Your task to perform on an android device: Open accessibility settings Image 0: 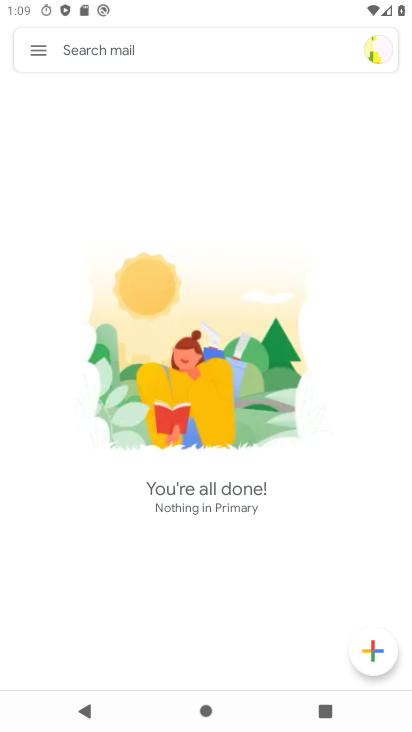
Step 0: press home button
Your task to perform on an android device: Open accessibility settings Image 1: 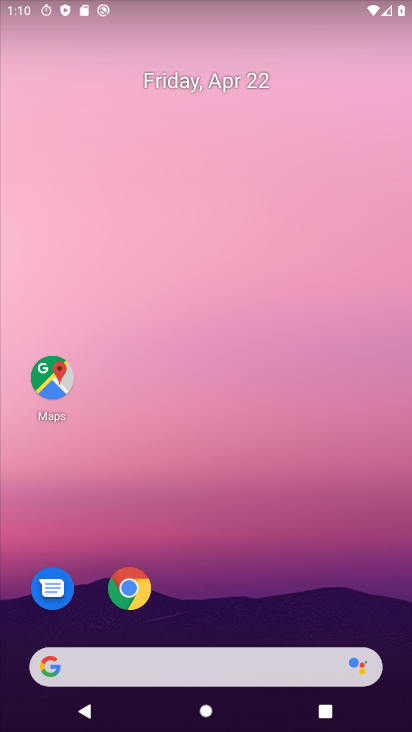
Step 1: drag from (367, 620) to (350, 175)
Your task to perform on an android device: Open accessibility settings Image 2: 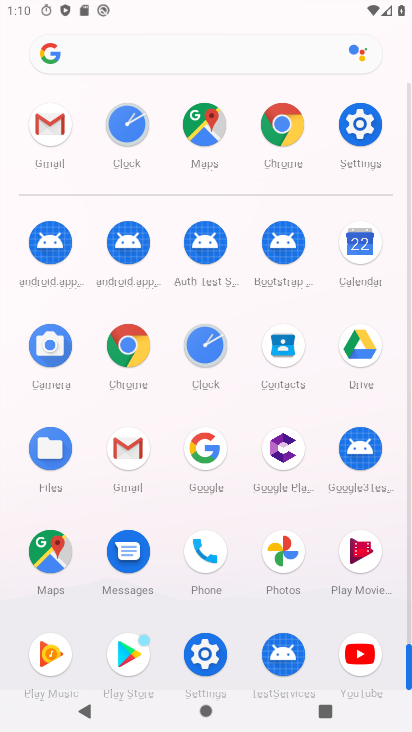
Step 2: click (217, 656)
Your task to perform on an android device: Open accessibility settings Image 3: 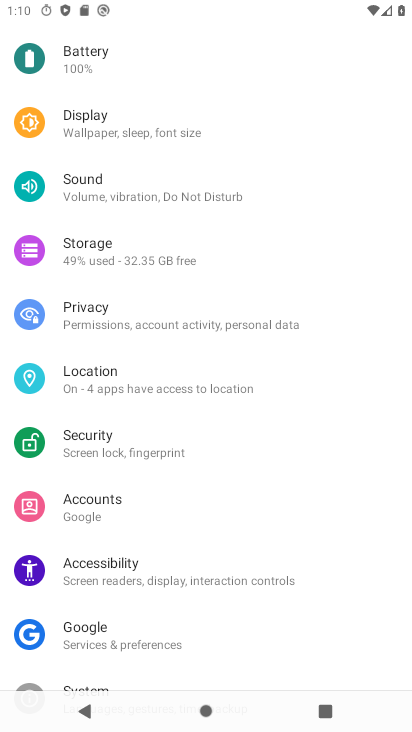
Step 3: click (142, 572)
Your task to perform on an android device: Open accessibility settings Image 4: 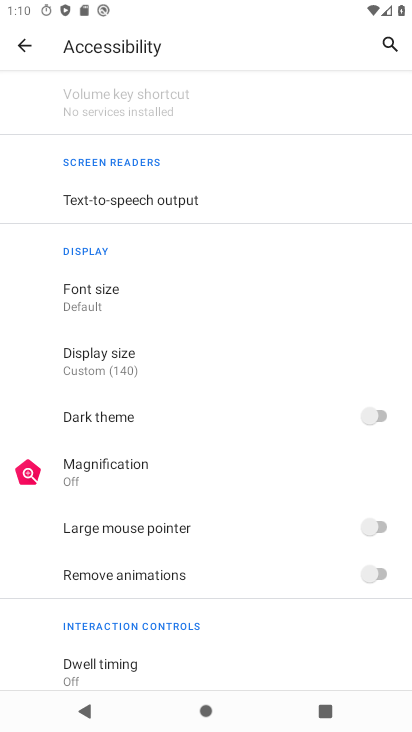
Step 4: task complete